Your task to perform on an android device: turn off picture-in-picture Image 0: 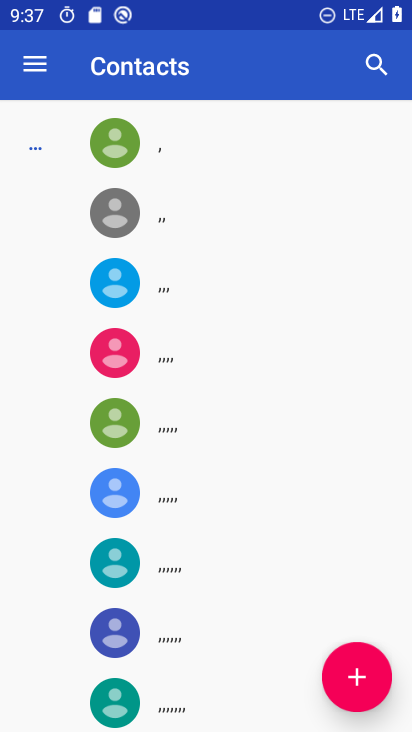
Step 0: press home button
Your task to perform on an android device: turn off picture-in-picture Image 1: 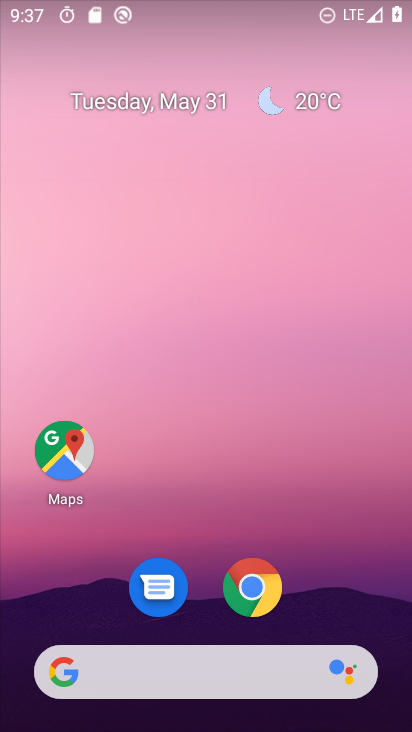
Step 1: click (259, 580)
Your task to perform on an android device: turn off picture-in-picture Image 2: 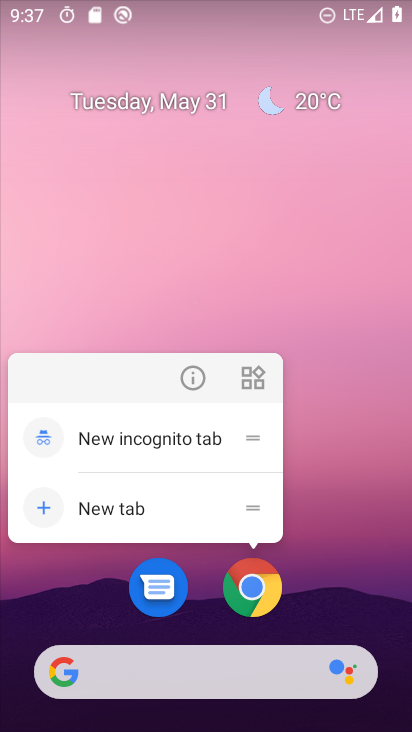
Step 2: click (200, 385)
Your task to perform on an android device: turn off picture-in-picture Image 3: 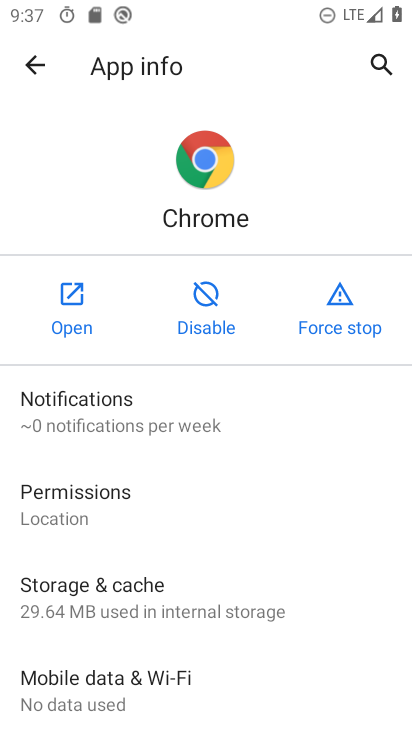
Step 3: drag from (180, 618) to (229, 137)
Your task to perform on an android device: turn off picture-in-picture Image 4: 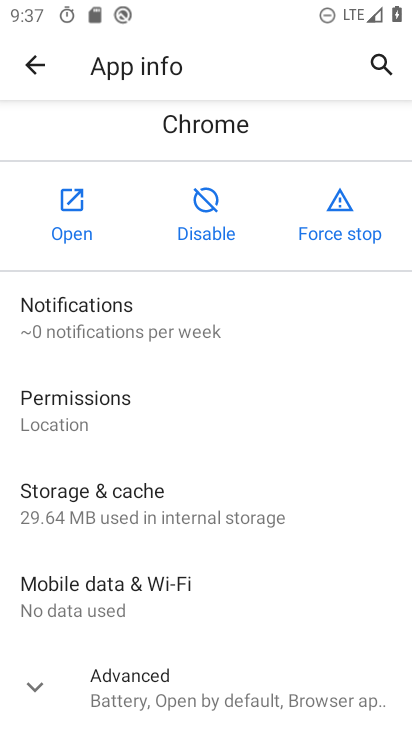
Step 4: click (150, 678)
Your task to perform on an android device: turn off picture-in-picture Image 5: 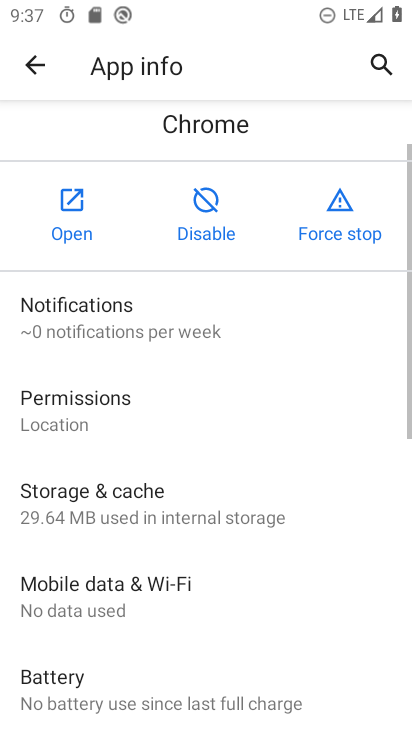
Step 5: drag from (150, 678) to (215, 71)
Your task to perform on an android device: turn off picture-in-picture Image 6: 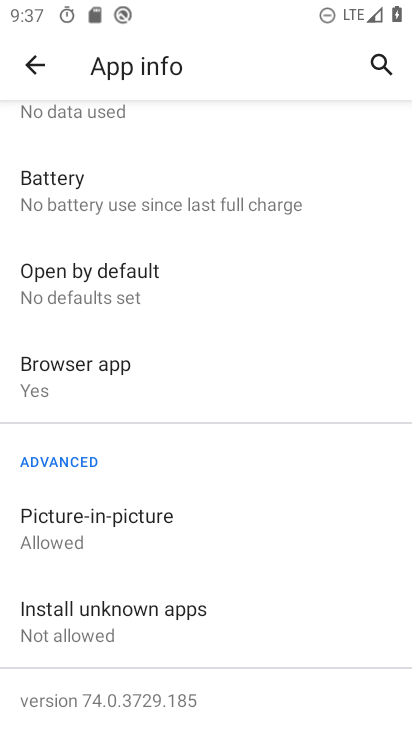
Step 6: drag from (151, 725) to (201, 162)
Your task to perform on an android device: turn off picture-in-picture Image 7: 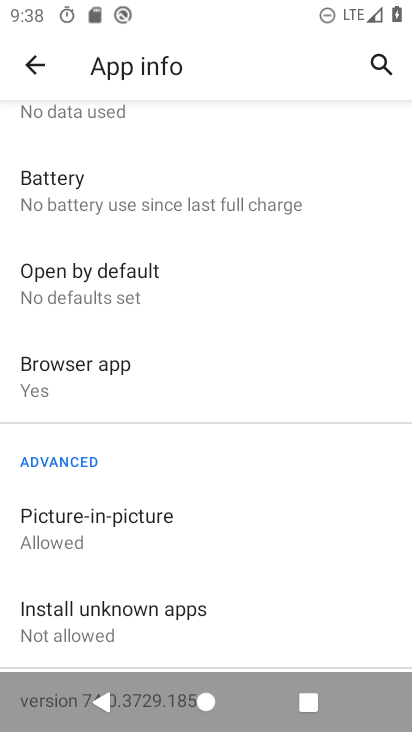
Step 7: click (182, 546)
Your task to perform on an android device: turn off picture-in-picture Image 8: 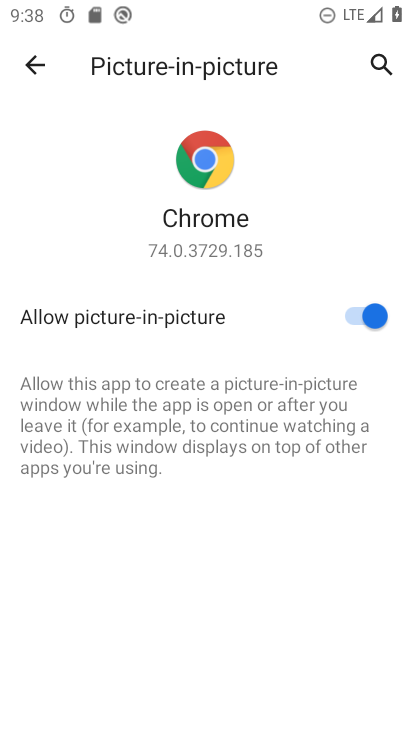
Step 8: click (370, 312)
Your task to perform on an android device: turn off picture-in-picture Image 9: 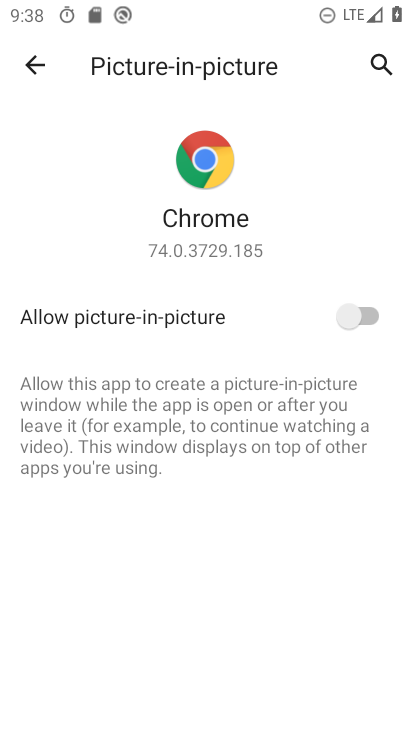
Step 9: task complete